Your task to perform on an android device: What's on Reddit today Image 0: 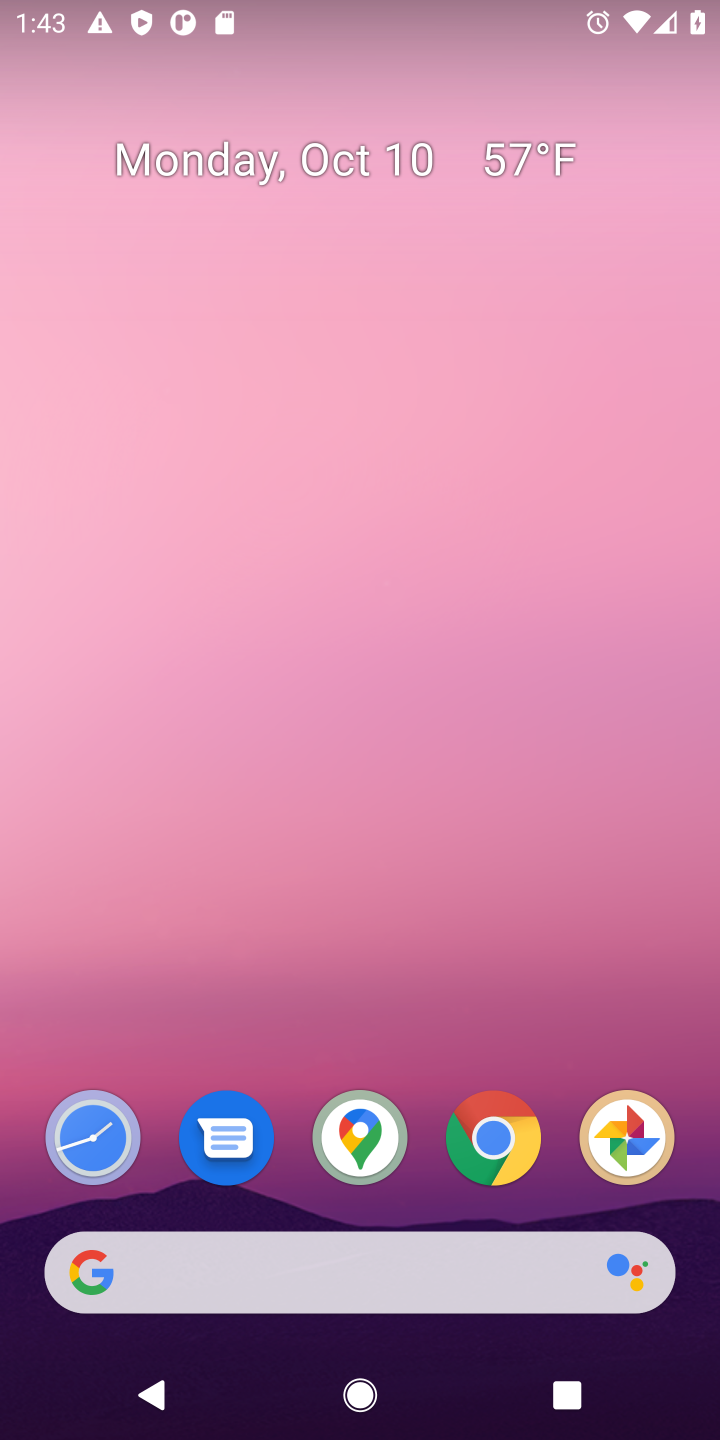
Step 0: click (353, 1251)
Your task to perform on an android device: What's on Reddit today Image 1: 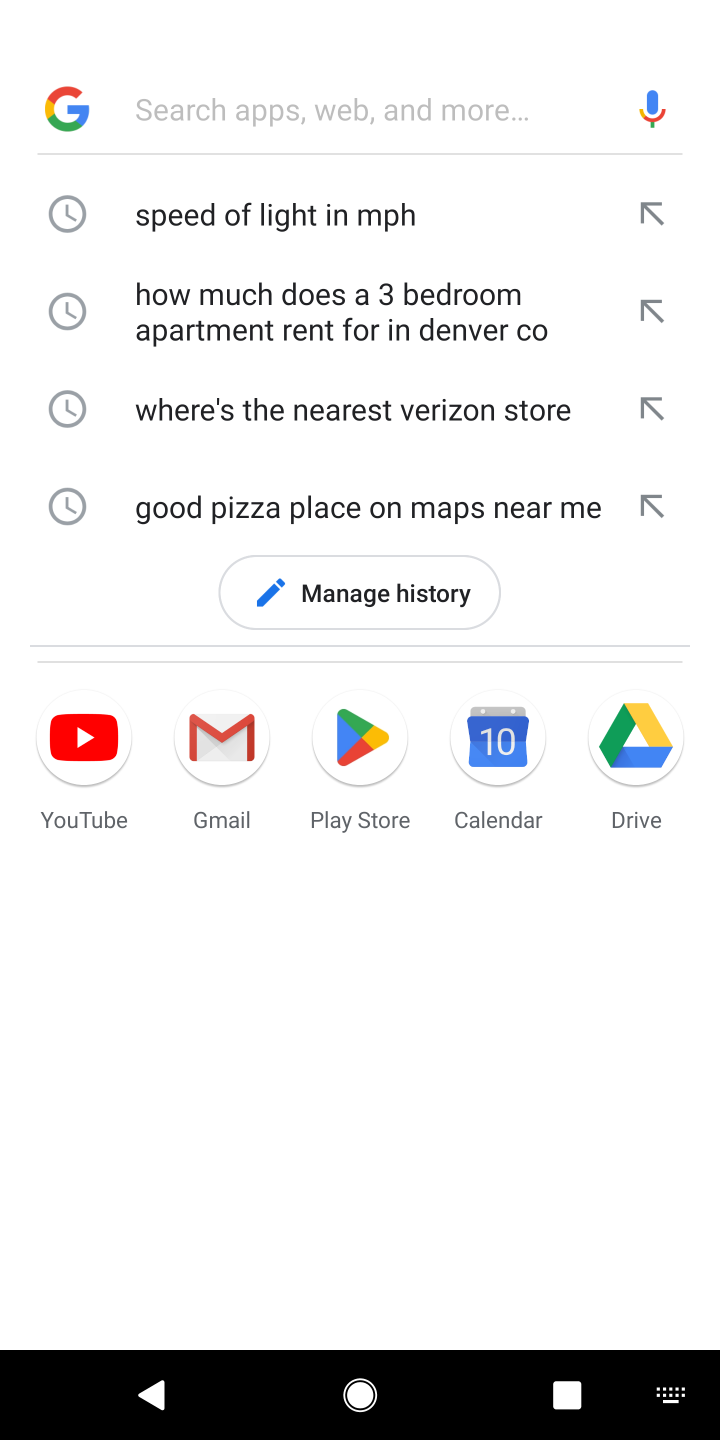
Step 1: type "whats on reddit today"
Your task to perform on an android device: What's on Reddit today Image 2: 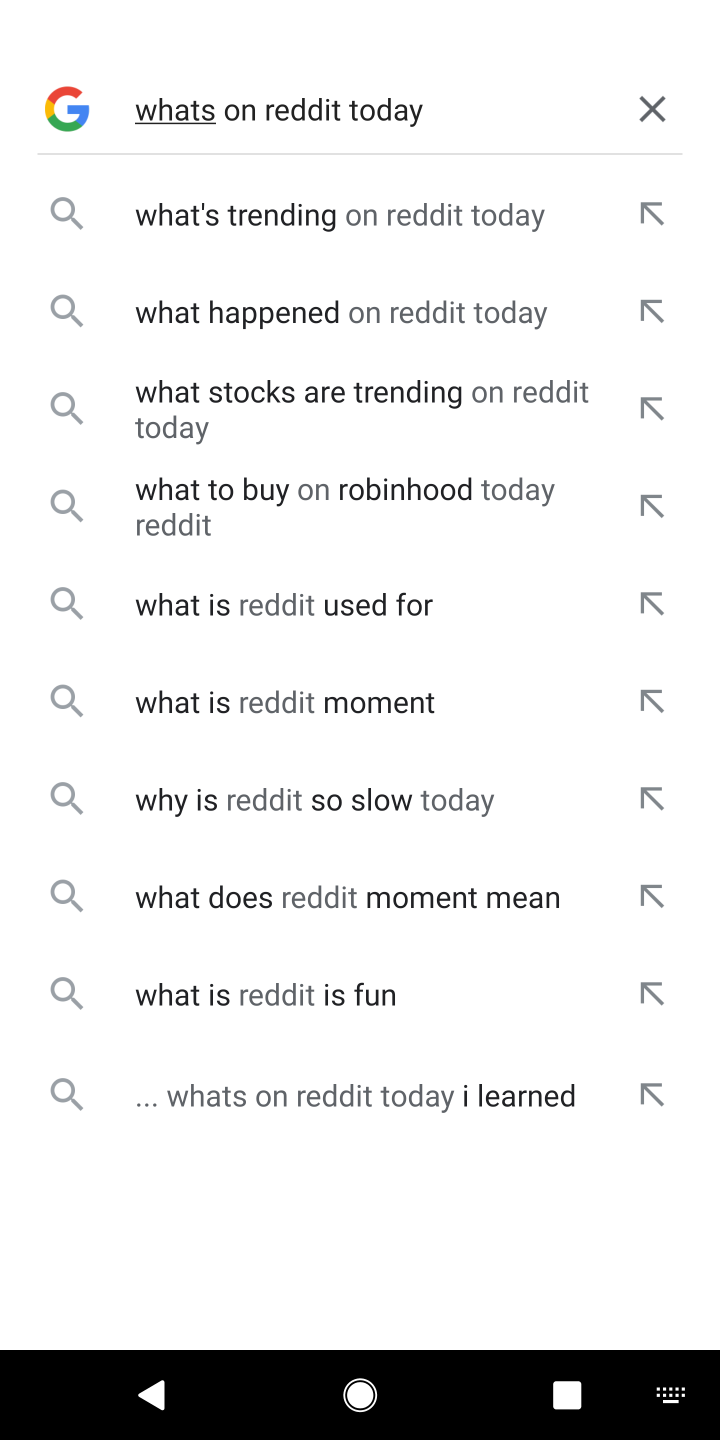
Step 2: click (344, 202)
Your task to perform on an android device: What's on Reddit today Image 3: 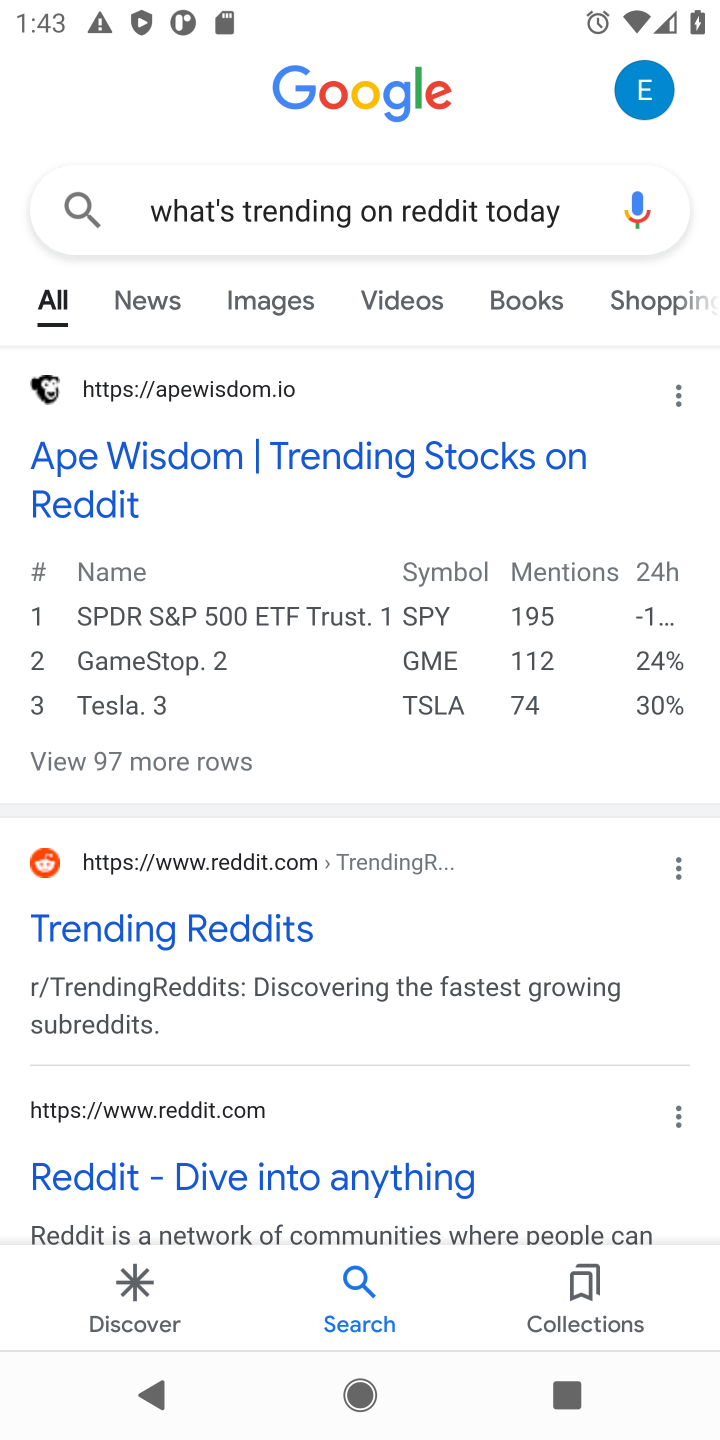
Step 3: task complete